Your task to perform on an android device: change the clock style Image 0: 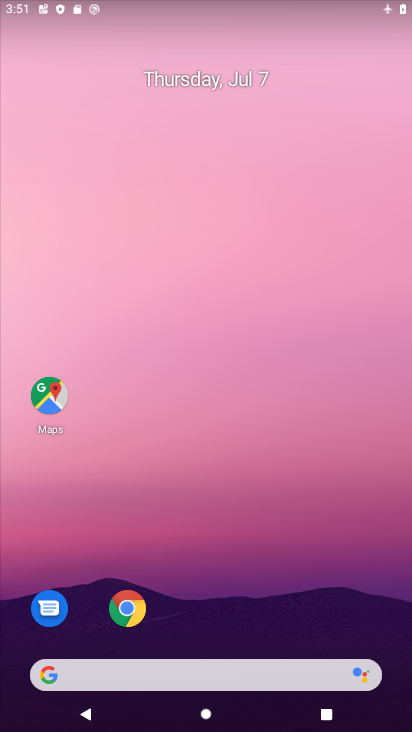
Step 0: drag from (230, 628) to (171, 132)
Your task to perform on an android device: change the clock style Image 1: 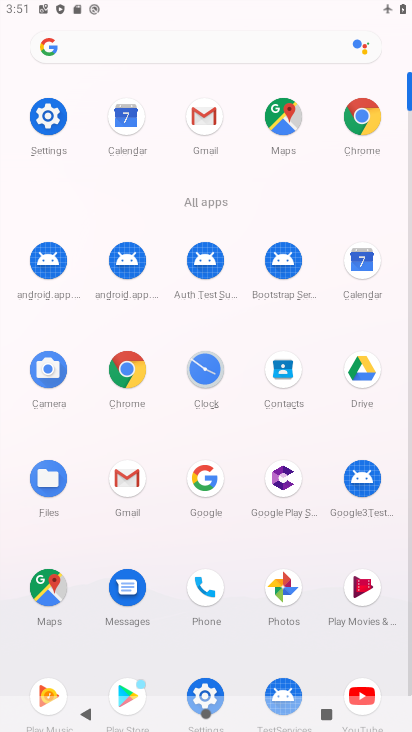
Step 1: click (209, 379)
Your task to perform on an android device: change the clock style Image 2: 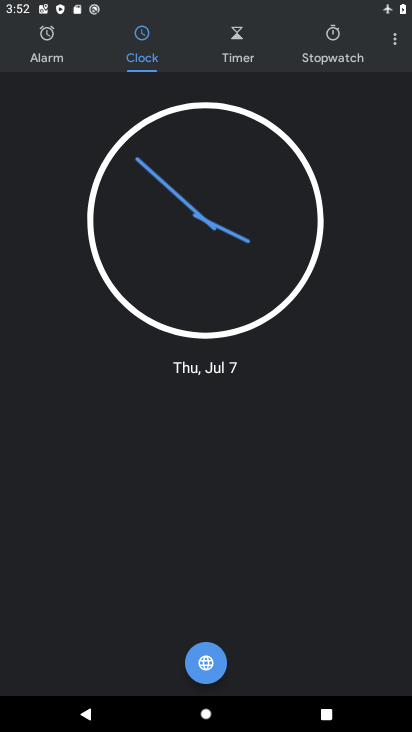
Step 2: click (403, 45)
Your task to perform on an android device: change the clock style Image 3: 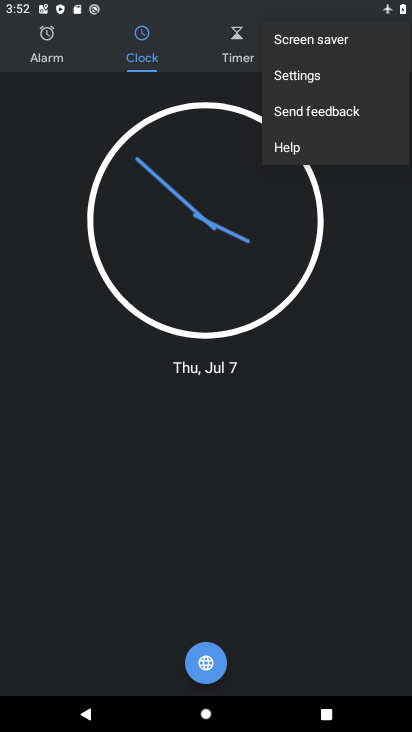
Step 3: click (333, 75)
Your task to perform on an android device: change the clock style Image 4: 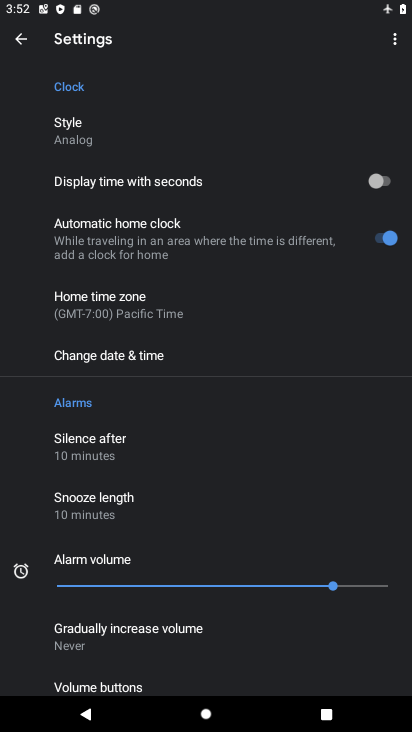
Step 4: click (176, 127)
Your task to perform on an android device: change the clock style Image 5: 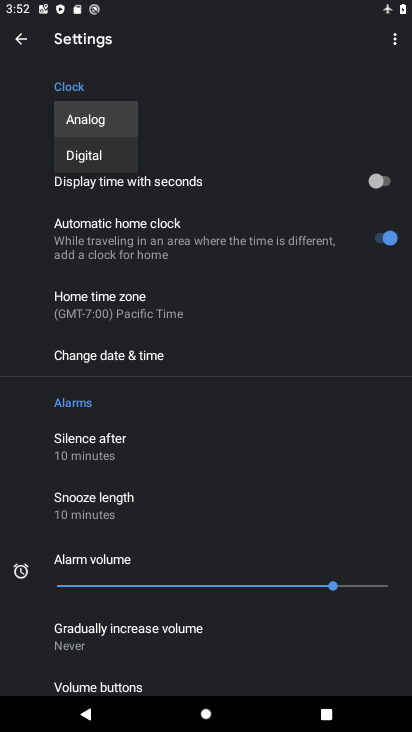
Step 5: click (116, 156)
Your task to perform on an android device: change the clock style Image 6: 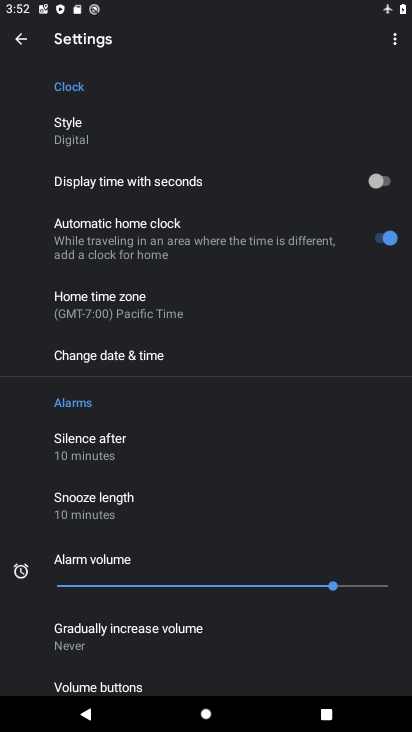
Step 6: task complete